Your task to perform on an android device: Open calendar and show me the second week of next month Image 0: 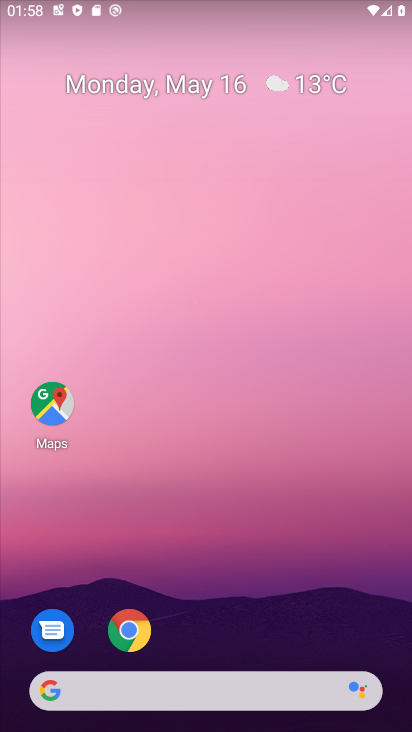
Step 0: drag from (336, 631) to (364, 177)
Your task to perform on an android device: Open calendar and show me the second week of next month Image 1: 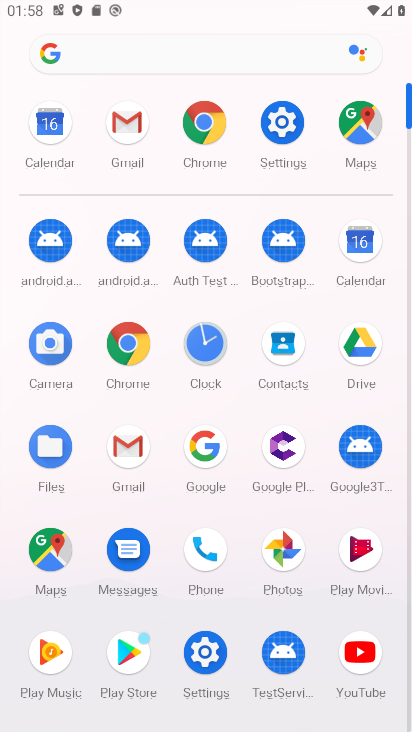
Step 1: click (369, 236)
Your task to perform on an android device: Open calendar and show me the second week of next month Image 2: 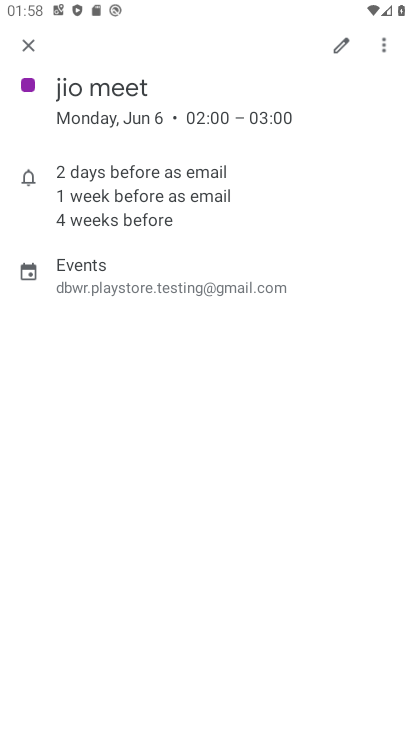
Step 2: click (32, 35)
Your task to perform on an android device: Open calendar and show me the second week of next month Image 3: 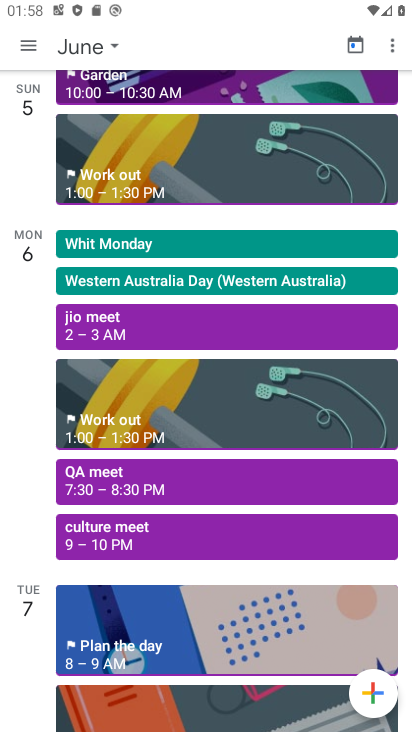
Step 3: click (102, 54)
Your task to perform on an android device: Open calendar and show me the second week of next month Image 4: 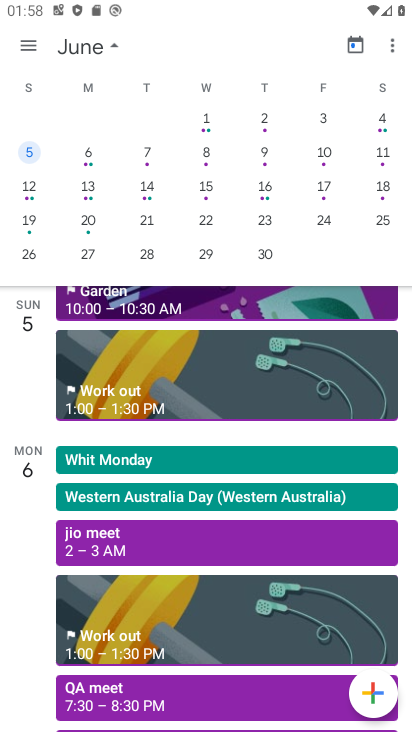
Step 4: task complete